Your task to perform on an android device: turn pop-ups on in chrome Image 0: 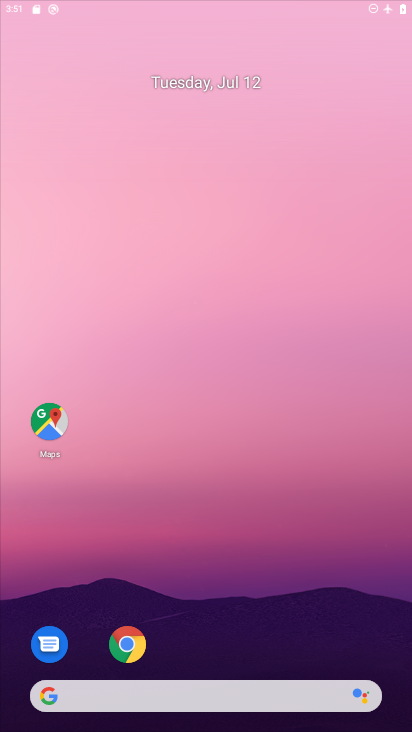
Step 0: click (246, 124)
Your task to perform on an android device: turn pop-ups on in chrome Image 1: 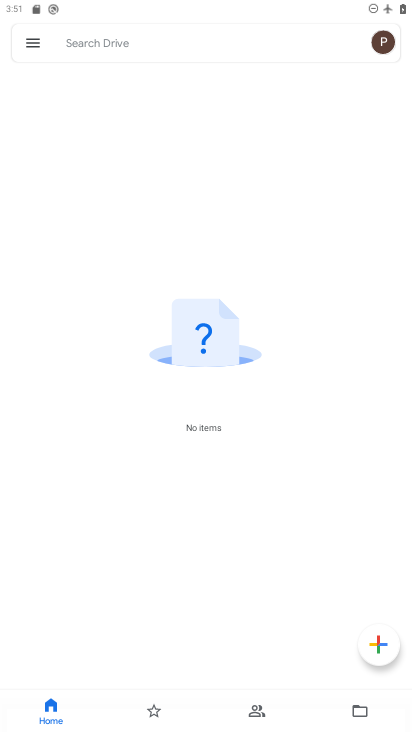
Step 1: press home button
Your task to perform on an android device: turn pop-ups on in chrome Image 2: 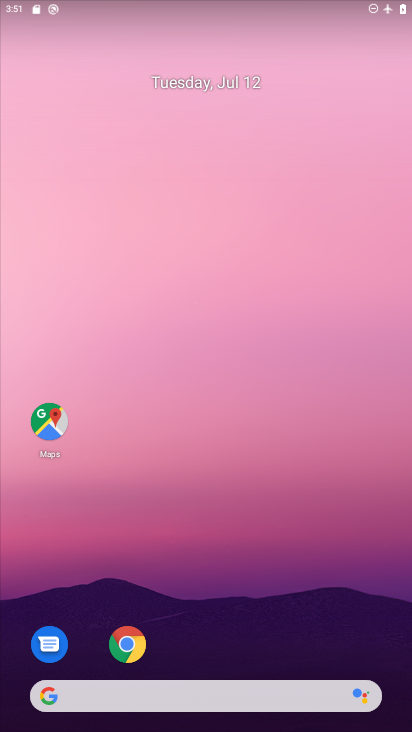
Step 2: drag from (327, 595) to (174, 46)
Your task to perform on an android device: turn pop-ups on in chrome Image 3: 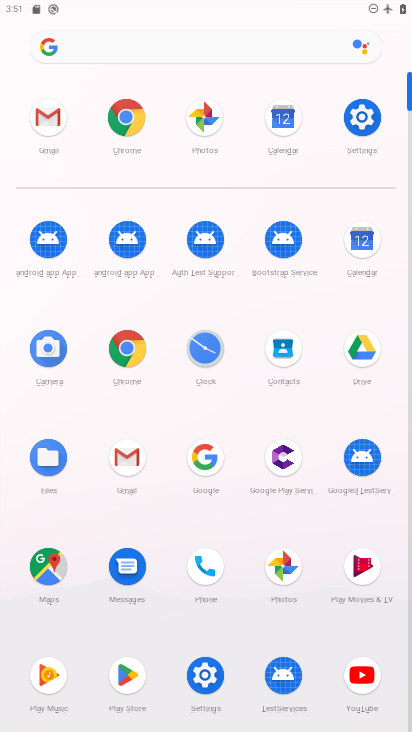
Step 3: click (131, 351)
Your task to perform on an android device: turn pop-ups on in chrome Image 4: 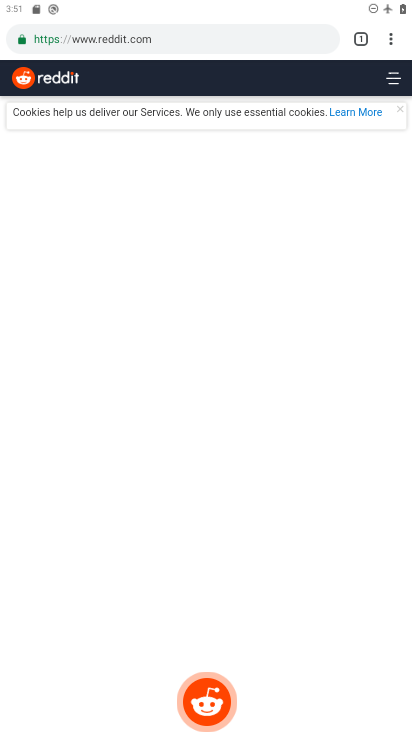
Step 4: drag from (396, 36) to (254, 435)
Your task to perform on an android device: turn pop-ups on in chrome Image 5: 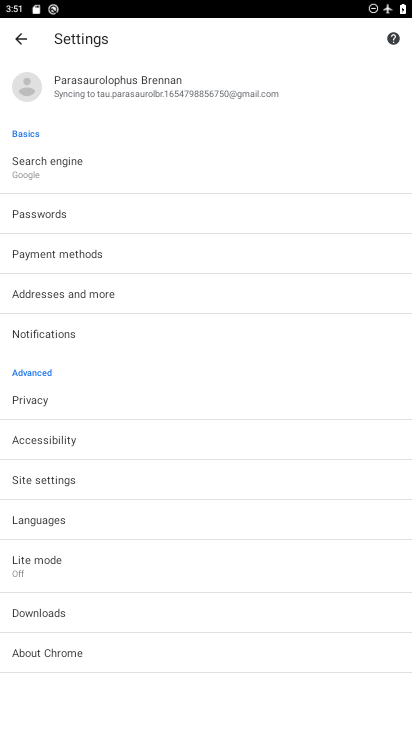
Step 5: click (69, 481)
Your task to perform on an android device: turn pop-ups on in chrome Image 6: 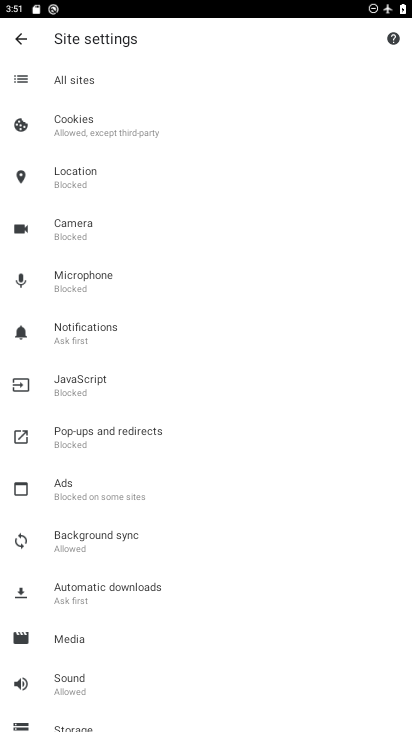
Step 6: click (131, 427)
Your task to perform on an android device: turn pop-ups on in chrome Image 7: 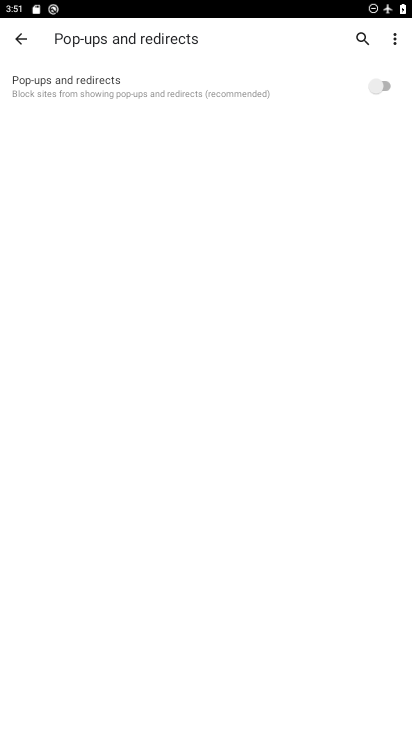
Step 7: click (391, 79)
Your task to perform on an android device: turn pop-ups on in chrome Image 8: 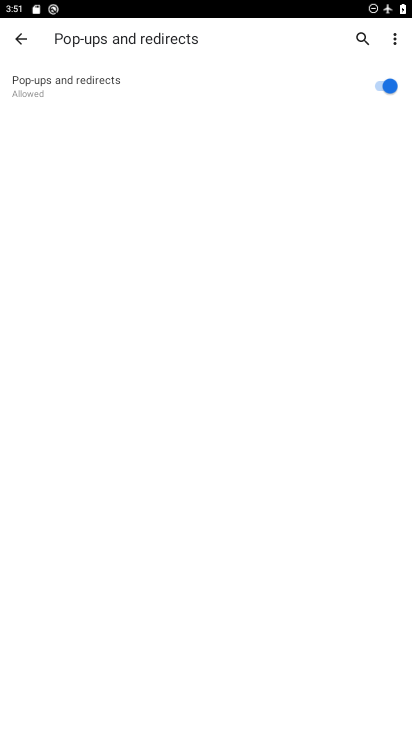
Step 8: task complete